Your task to perform on an android device: Open the phone app and click the voicemail tab. Image 0: 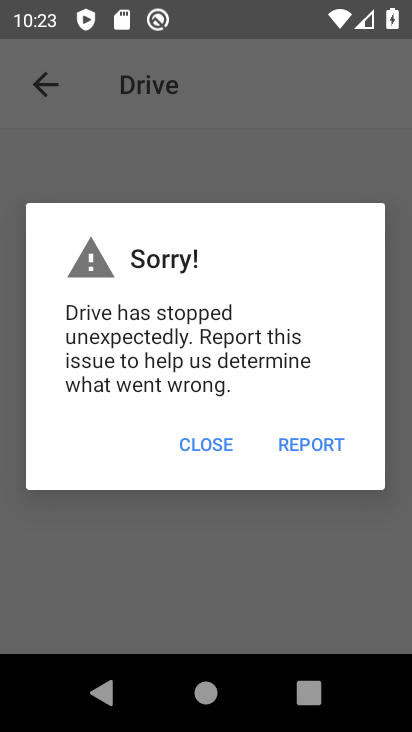
Step 0: press home button
Your task to perform on an android device: Open the phone app and click the voicemail tab. Image 1: 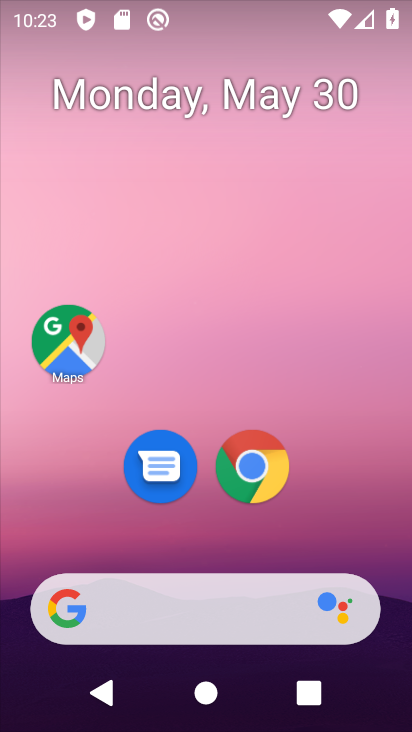
Step 1: drag from (153, 727) to (304, 156)
Your task to perform on an android device: Open the phone app and click the voicemail tab. Image 2: 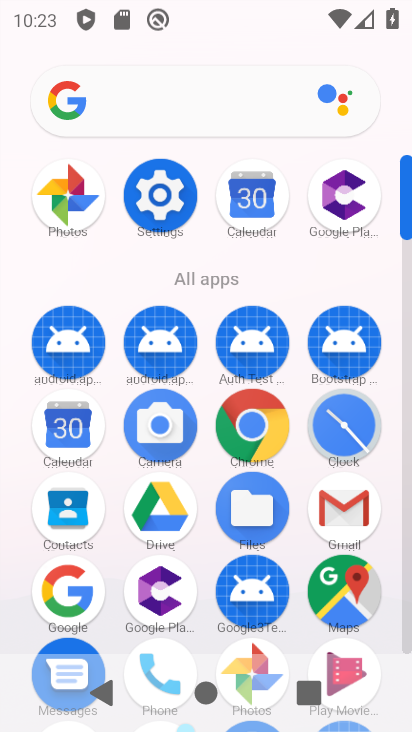
Step 2: drag from (206, 599) to (191, 225)
Your task to perform on an android device: Open the phone app and click the voicemail tab. Image 3: 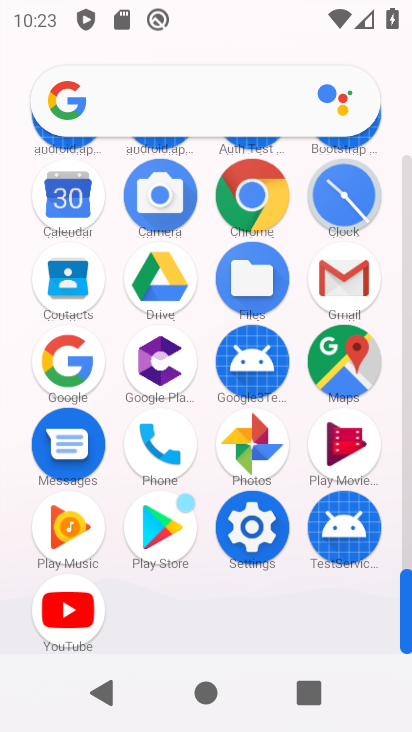
Step 3: click (155, 462)
Your task to perform on an android device: Open the phone app and click the voicemail tab. Image 4: 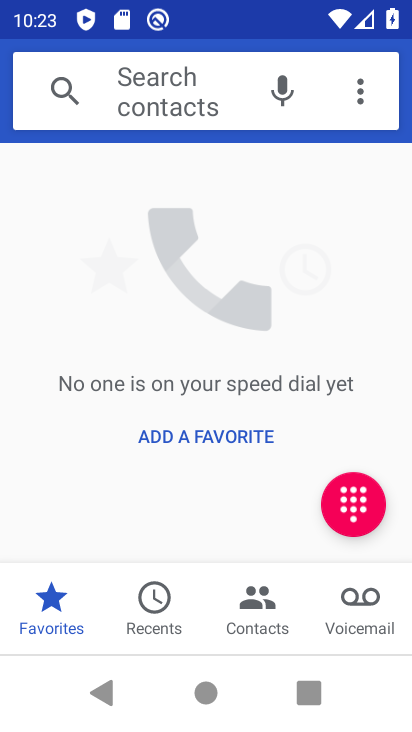
Step 4: click (344, 621)
Your task to perform on an android device: Open the phone app and click the voicemail tab. Image 5: 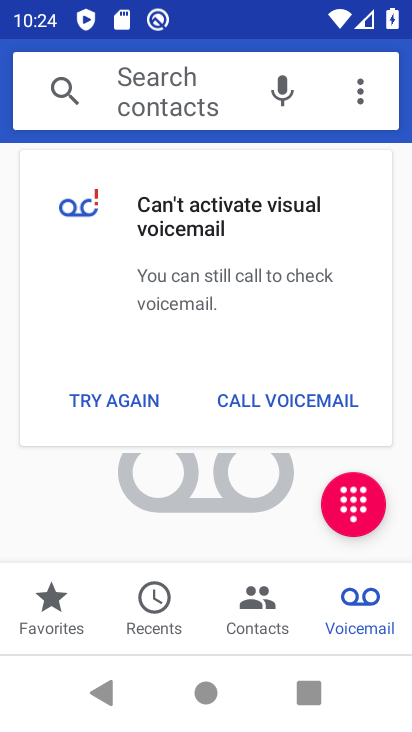
Step 5: click (345, 623)
Your task to perform on an android device: Open the phone app and click the voicemail tab. Image 6: 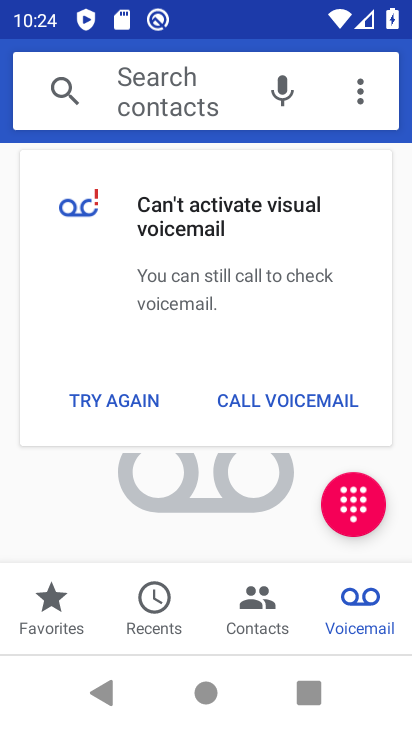
Step 6: task complete